Your task to perform on an android device: change the clock style Image 0: 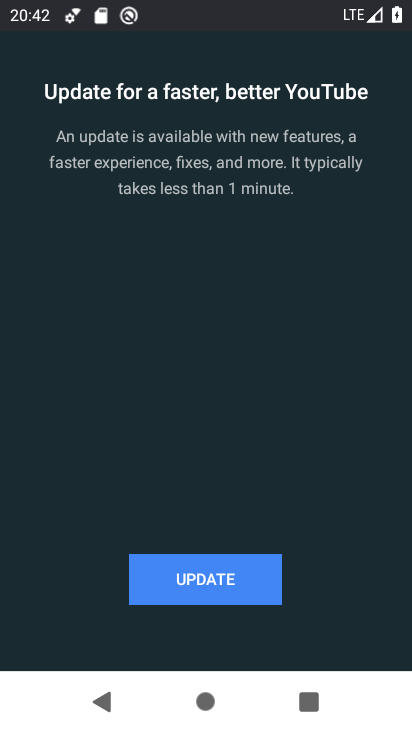
Step 0: press home button
Your task to perform on an android device: change the clock style Image 1: 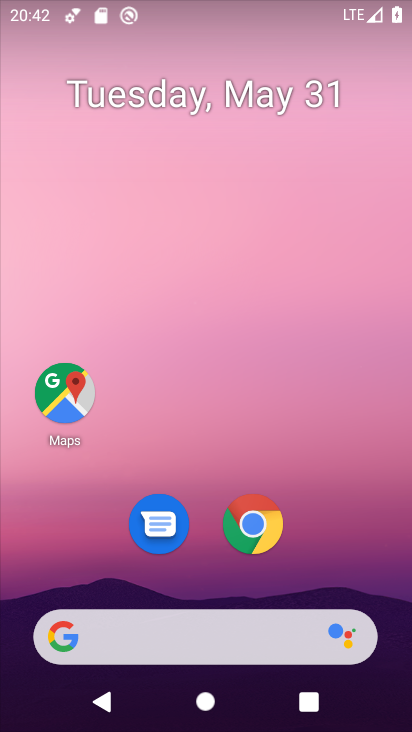
Step 1: drag from (322, 547) to (299, 30)
Your task to perform on an android device: change the clock style Image 2: 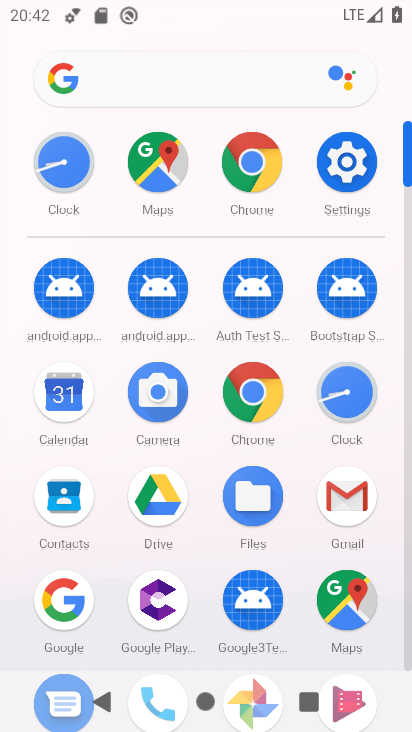
Step 2: click (83, 164)
Your task to perform on an android device: change the clock style Image 3: 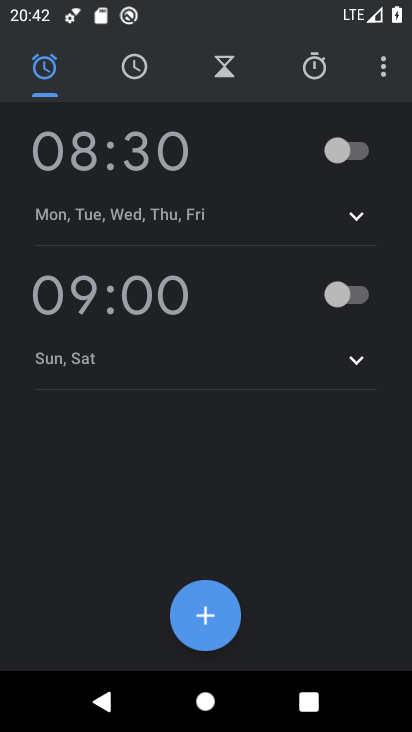
Step 3: click (136, 69)
Your task to perform on an android device: change the clock style Image 4: 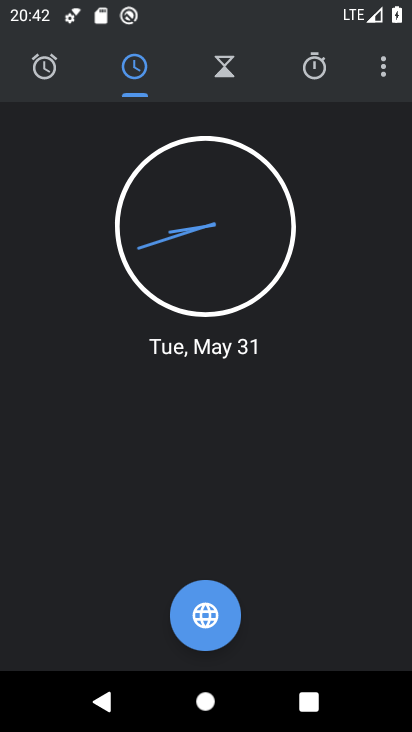
Step 4: click (380, 64)
Your task to perform on an android device: change the clock style Image 5: 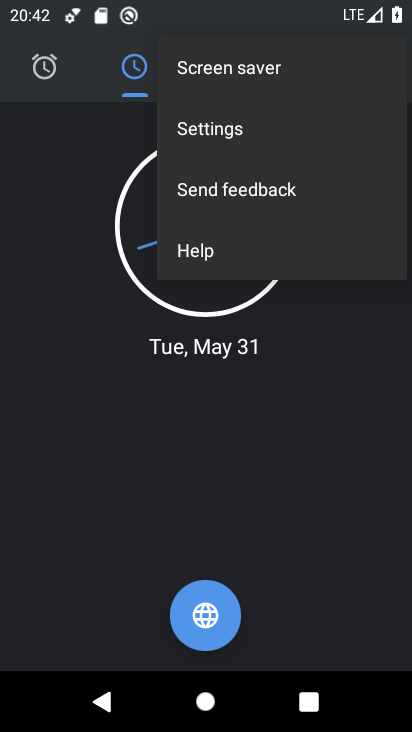
Step 5: click (297, 124)
Your task to perform on an android device: change the clock style Image 6: 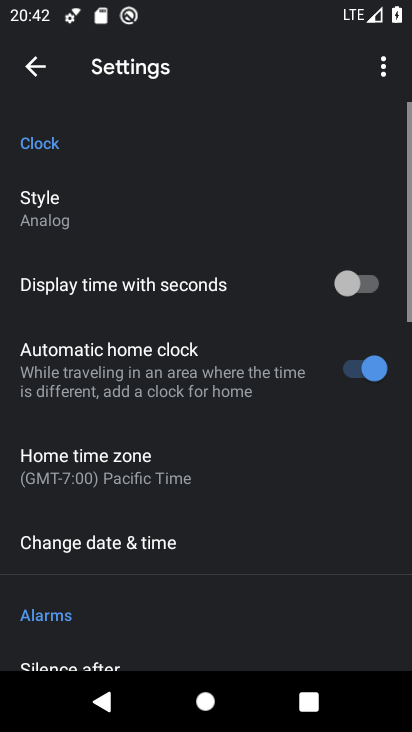
Step 6: click (159, 214)
Your task to perform on an android device: change the clock style Image 7: 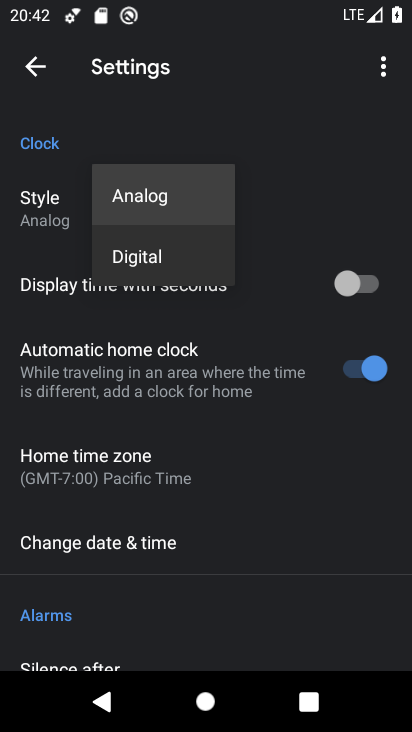
Step 7: click (160, 252)
Your task to perform on an android device: change the clock style Image 8: 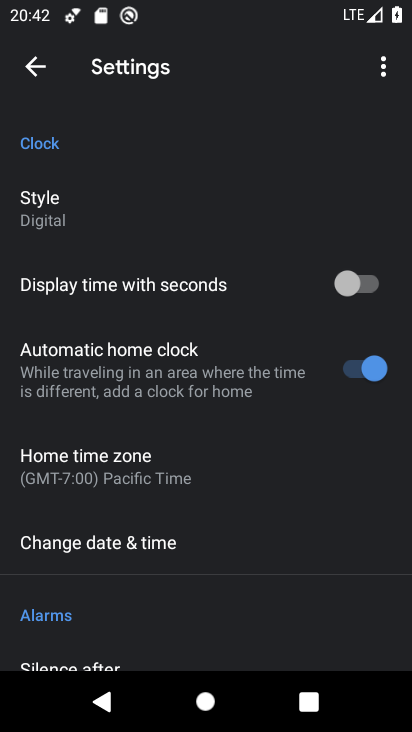
Step 8: click (43, 59)
Your task to perform on an android device: change the clock style Image 9: 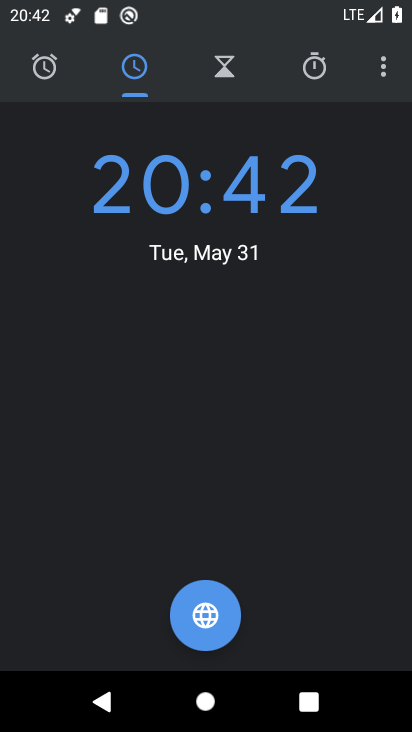
Step 9: task complete